Your task to perform on an android device: Go to calendar. Show me events next week Image 0: 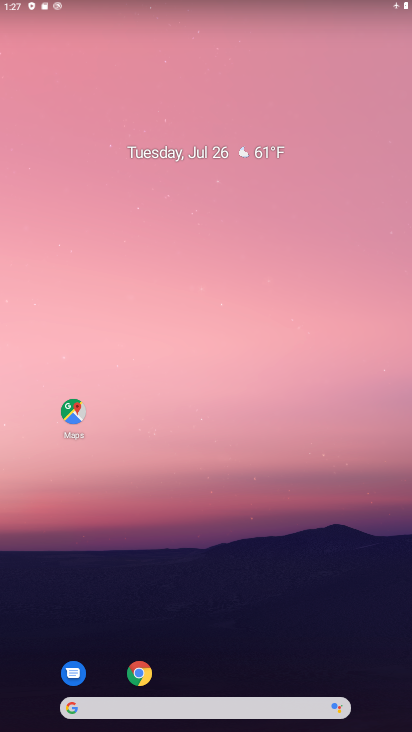
Step 0: drag from (205, 676) to (224, 217)
Your task to perform on an android device: Go to calendar. Show me events next week Image 1: 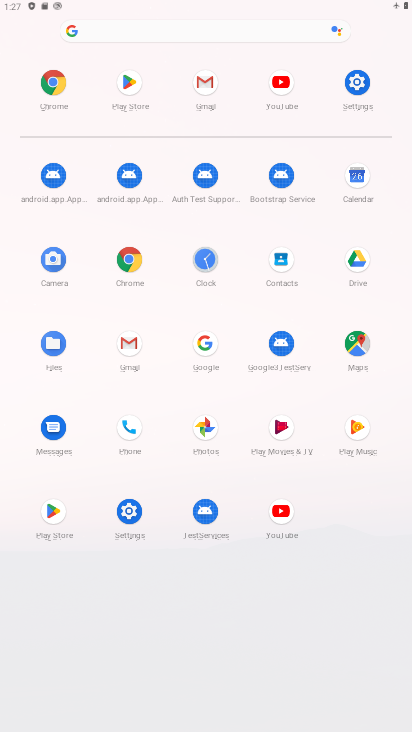
Step 1: click (358, 168)
Your task to perform on an android device: Go to calendar. Show me events next week Image 2: 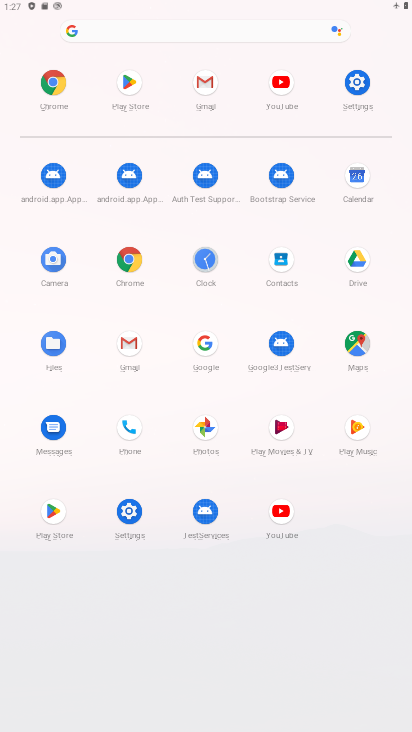
Step 2: click (358, 168)
Your task to perform on an android device: Go to calendar. Show me events next week Image 3: 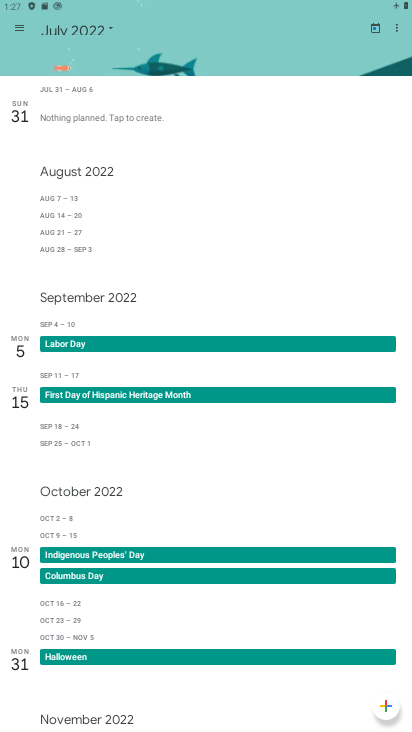
Step 3: click (85, 34)
Your task to perform on an android device: Go to calendar. Show me events next week Image 4: 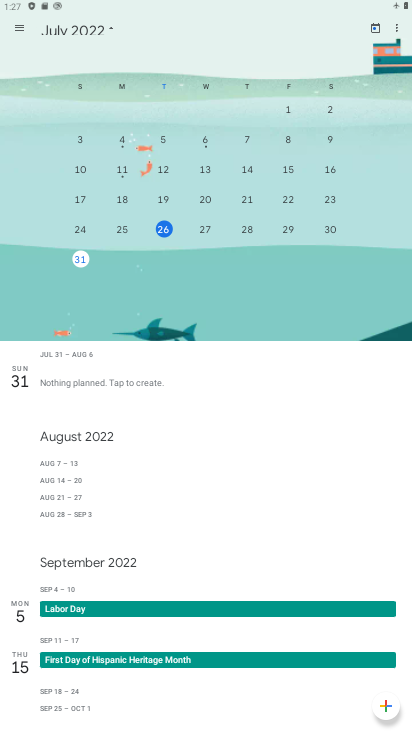
Step 4: click (81, 256)
Your task to perform on an android device: Go to calendar. Show me events next week Image 5: 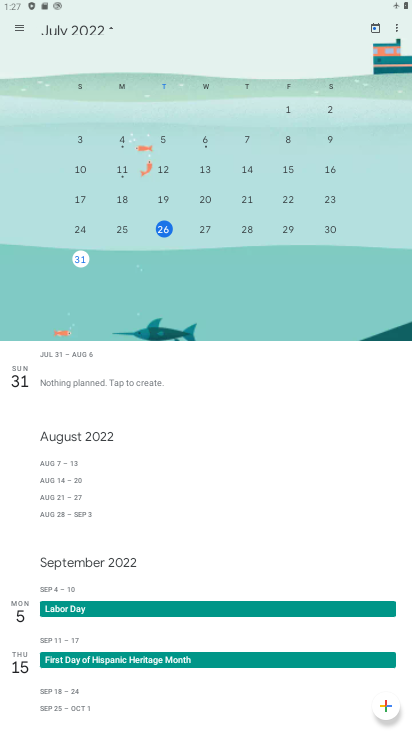
Step 5: task complete